Your task to perform on an android device: Open wifi settings Image 0: 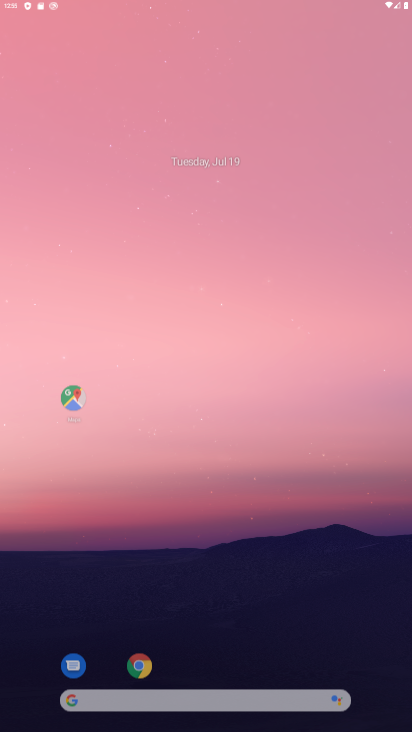
Step 0: press home button
Your task to perform on an android device: Open wifi settings Image 1: 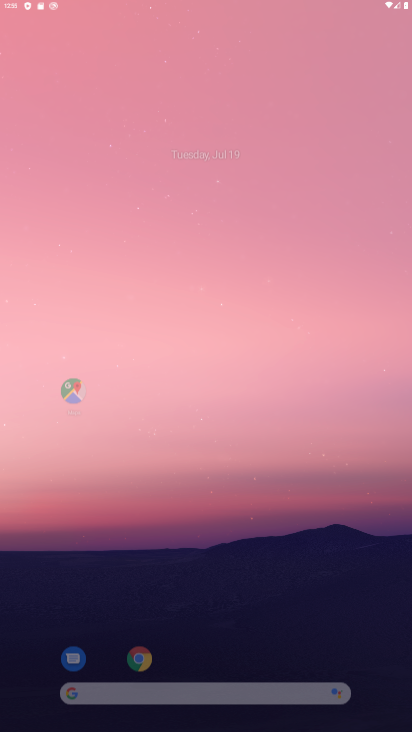
Step 1: drag from (193, 671) to (193, 111)
Your task to perform on an android device: Open wifi settings Image 2: 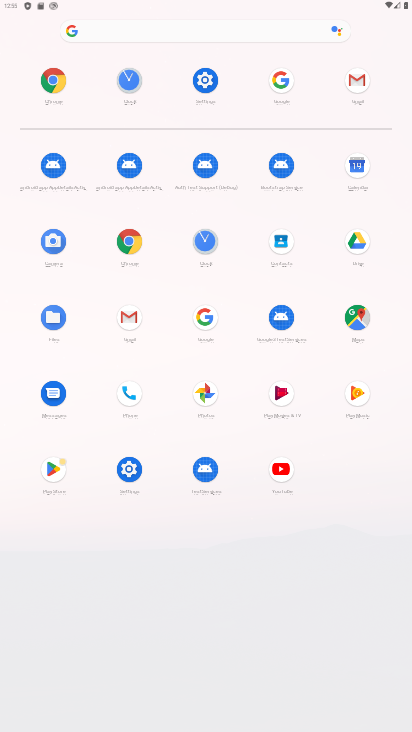
Step 2: click (204, 87)
Your task to perform on an android device: Open wifi settings Image 3: 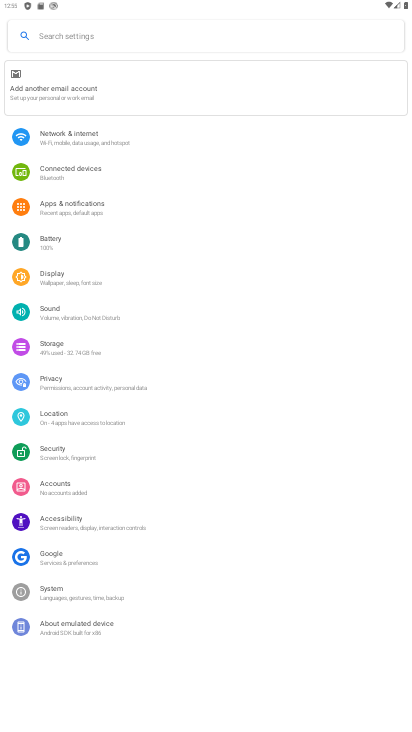
Step 3: click (89, 133)
Your task to perform on an android device: Open wifi settings Image 4: 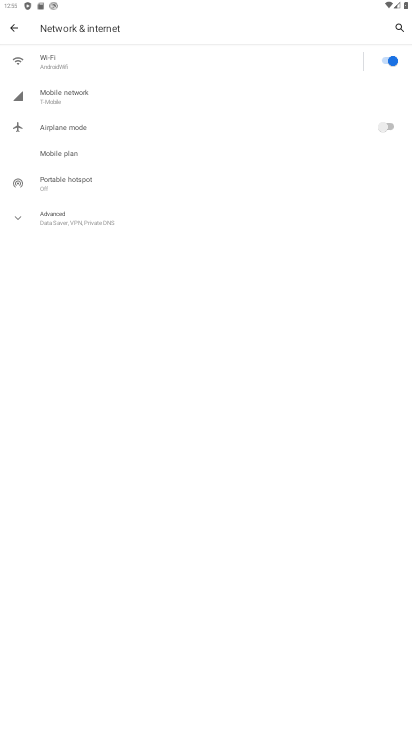
Step 4: click (104, 47)
Your task to perform on an android device: Open wifi settings Image 5: 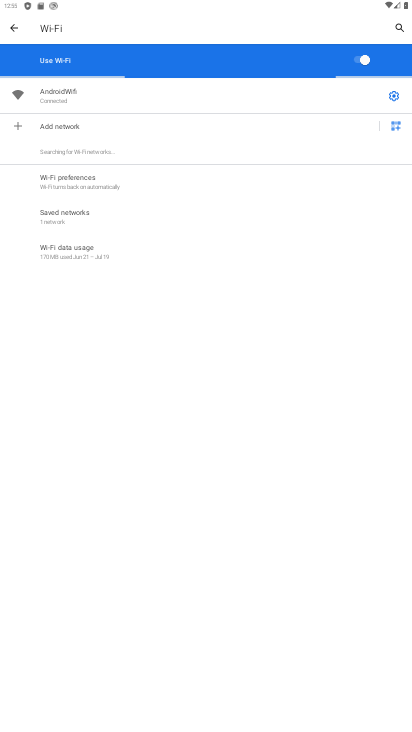
Step 5: task complete